Your task to perform on an android device: Open Wikipedia Image 0: 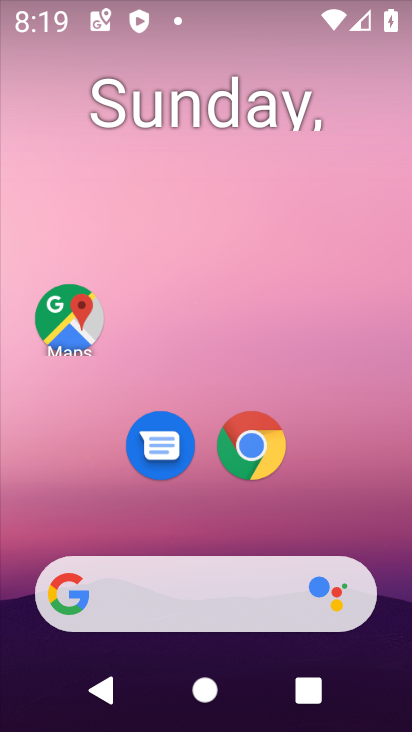
Step 0: click (275, 444)
Your task to perform on an android device: Open Wikipedia Image 1: 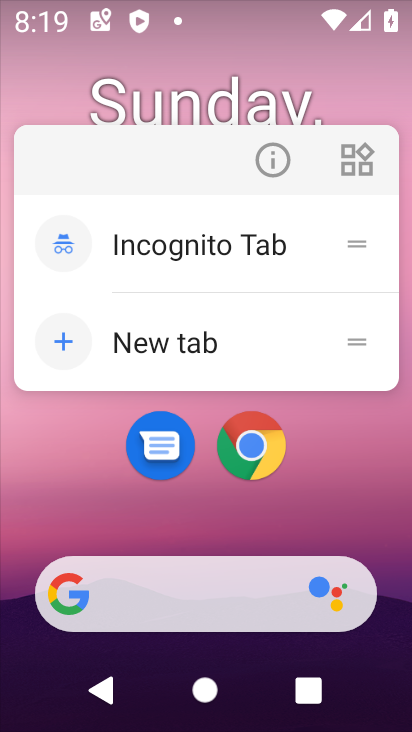
Step 1: click (256, 457)
Your task to perform on an android device: Open Wikipedia Image 2: 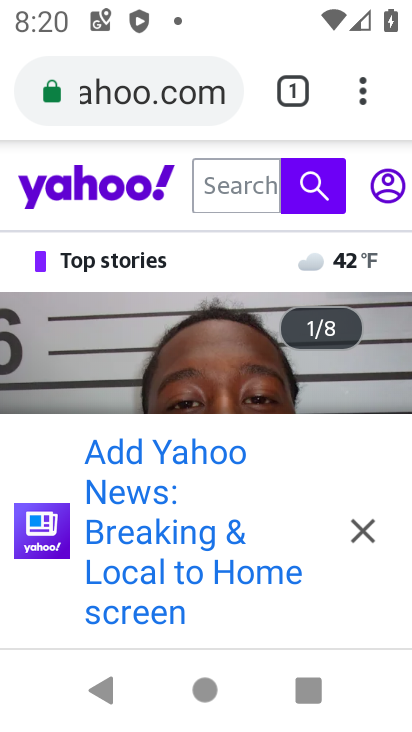
Step 2: click (282, 97)
Your task to perform on an android device: Open Wikipedia Image 3: 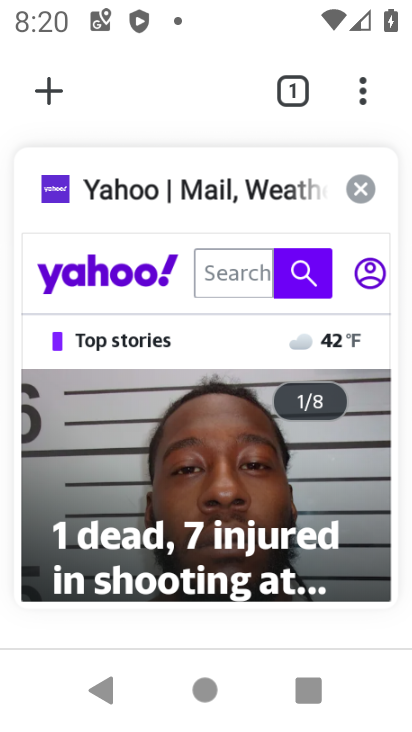
Step 3: click (352, 182)
Your task to perform on an android device: Open Wikipedia Image 4: 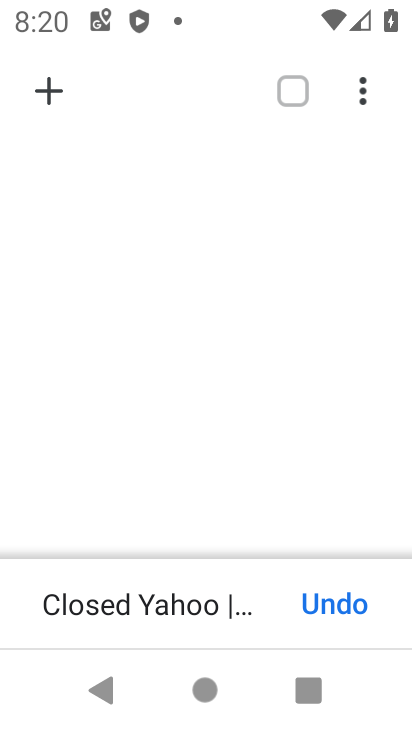
Step 4: click (53, 97)
Your task to perform on an android device: Open Wikipedia Image 5: 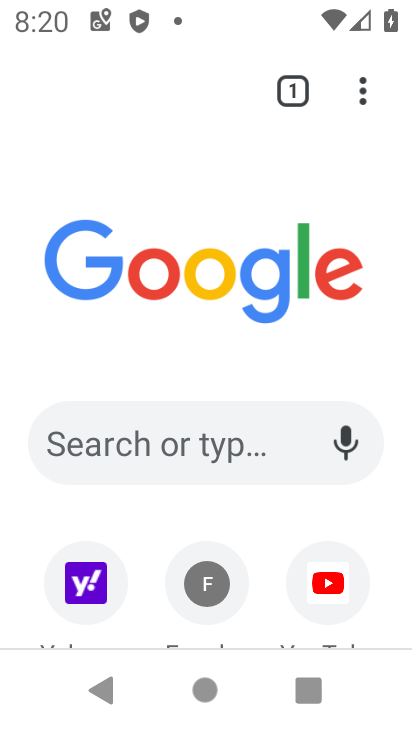
Step 5: drag from (35, 510) to (242, 88)
Your task to perform on an android device: Open Wikipedia Image 6: 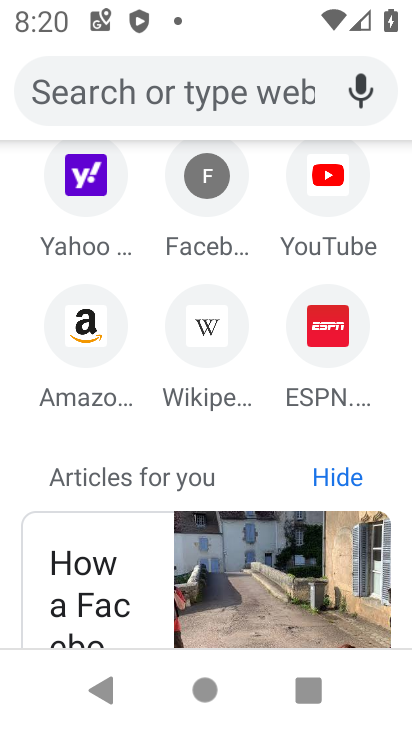
Step 6: click (206, 312)
Your task to perform on an android device: Open Wikipedia Image 7: 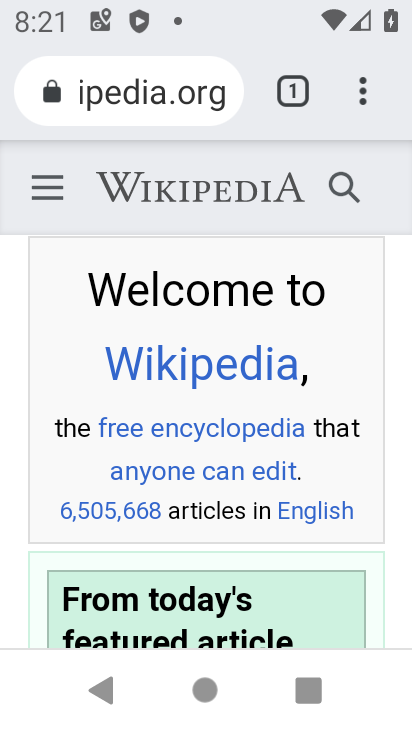
Step 7: task complete